Your task to perform on an android device: Go to accessibility settings Image 0: 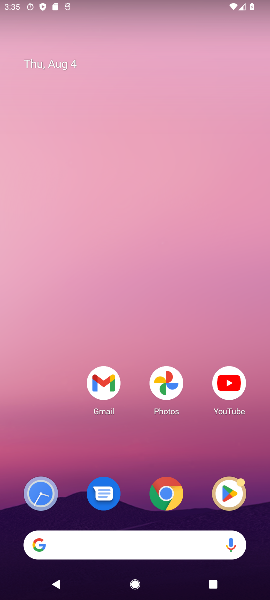
Step 0: drag from (48, 525) to (130, 204)
Your task to perform on an android device: Go to accessibility settings Image 1: 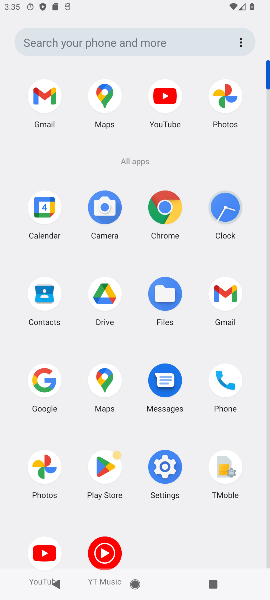
Step 1: click (172, 466)
Your task to perform on an android device: Go to accessibility settings Image 2: 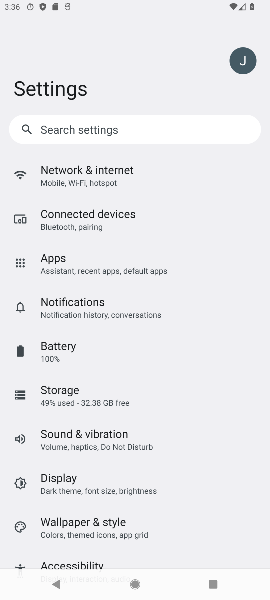
Step 2: drag from (105, 503) to (105, 126)
Your task to perform on an android device: Go to accessibility settings Image 3: 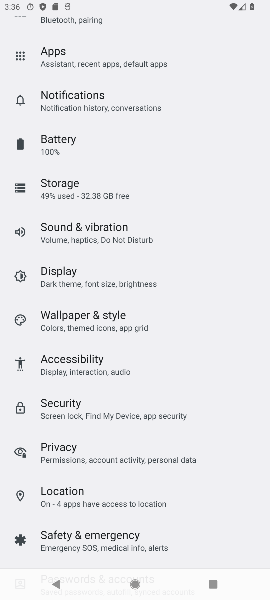
Step 3: click (81, 369)
Your task to perform on an android device: Go to accessibility settings Image 4: 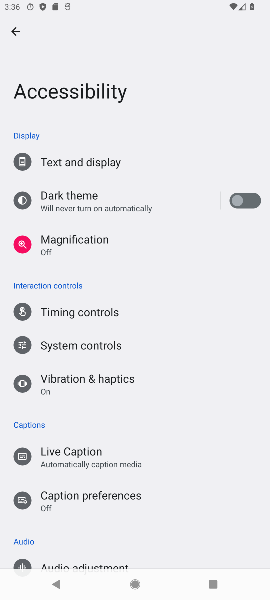
Step 4: task complete